Your task to perform on an android device: Open the calendar app, open the side menu, and click the "Day" option Image 0: 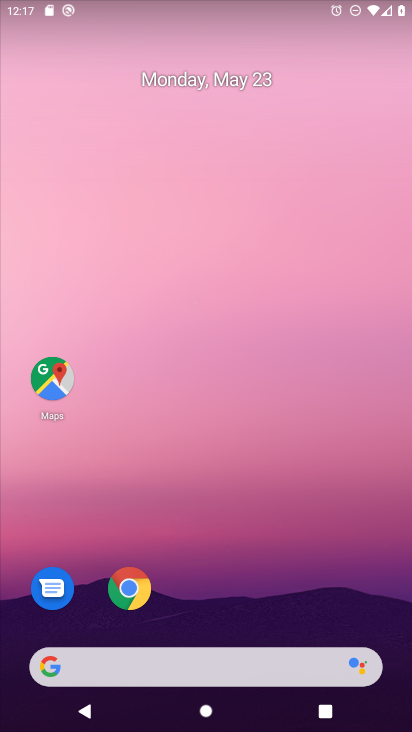
Step 0: drag from (284, 694) to (267, 119)
Your task to perform on an android device: Open the calendar app, open the side menu, and click the "Day" option Image 1: 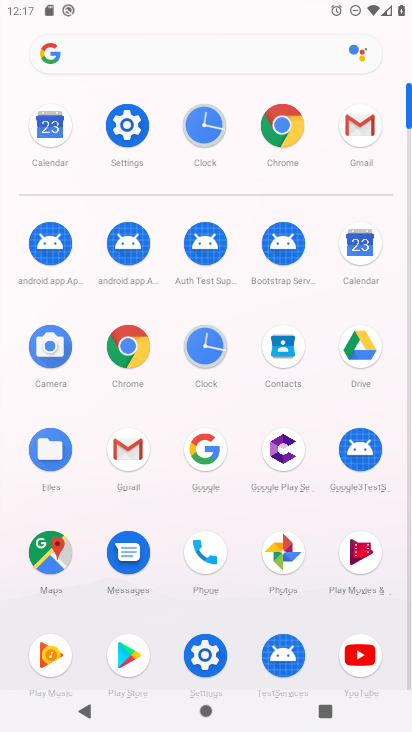
Step 1: click (365, 248)
Your task to perform on an android device: Open the calendar app, open the side menu, and click the "Day" option Image 2: 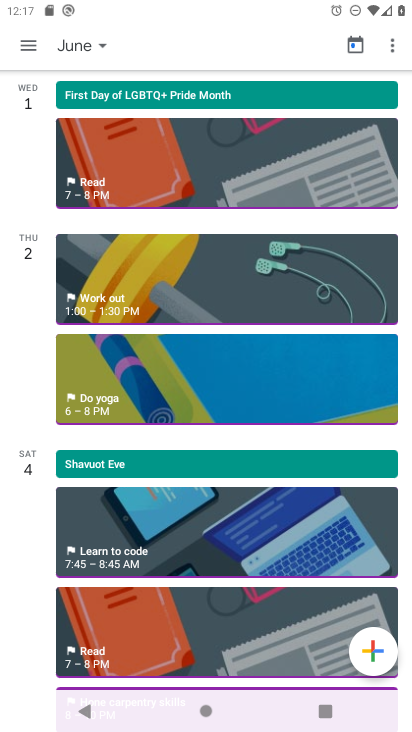
Step 2: click (29, 47)
Your task to perform on an android device: Open the calendar app, open the side menu, and click the "Day" option Image 3: 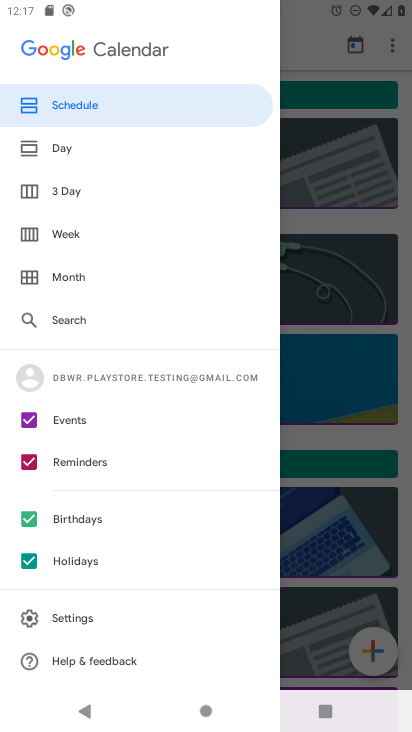
Step 3: click (82, 272)
Your task to perform on an android device: Open the calendar app, open the side menu, and click the "Day" option Image 4: 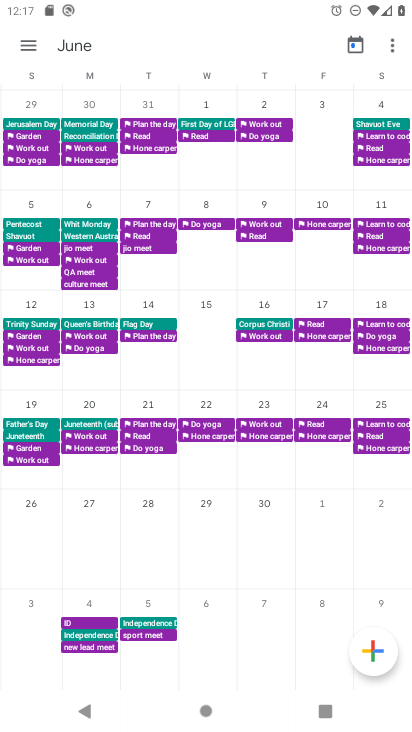
Step 4: drag from (23, 389) to (393, 341)
Your task to perform on an android device: Open the calendar app, open the side menu, and click the "Day" option Image 5: 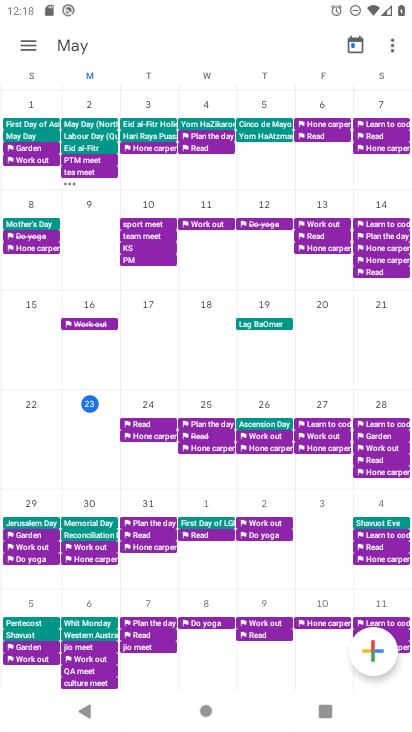
Step 5: click (34, 51)
Your task to perform on an android device: Open the calendar app, open the side menu, and click the "Day" option Image 6: 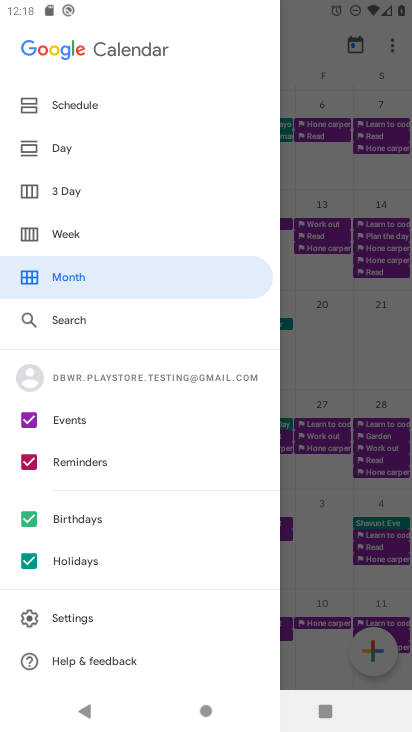
Step 6: click (71, 147)
Your task to perform on an android device: Open the calendar app, open the side menu, and click the "Day" option Image 7: 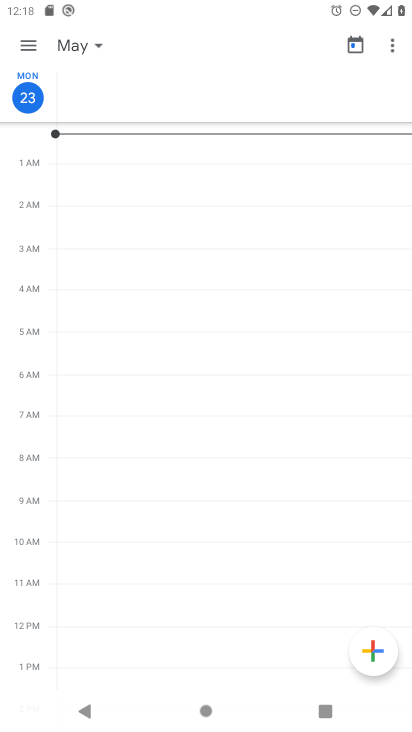
Step 7: task complete